Your task to perform on an android device: Show me recent news Image 0: 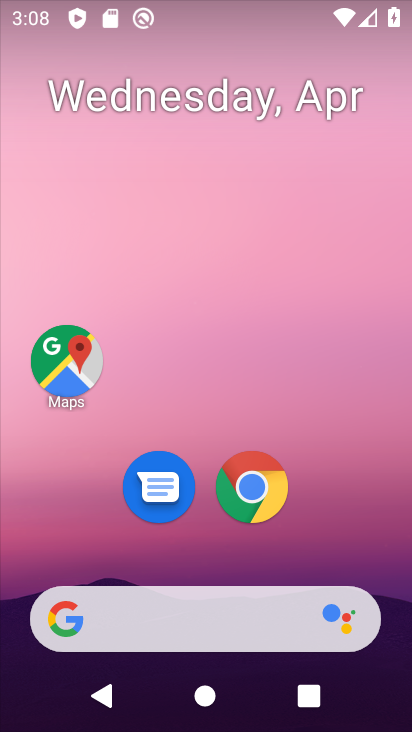
Step 0: click (270, 491)
Your task to perform on an android device: Show me recent news Image 1: 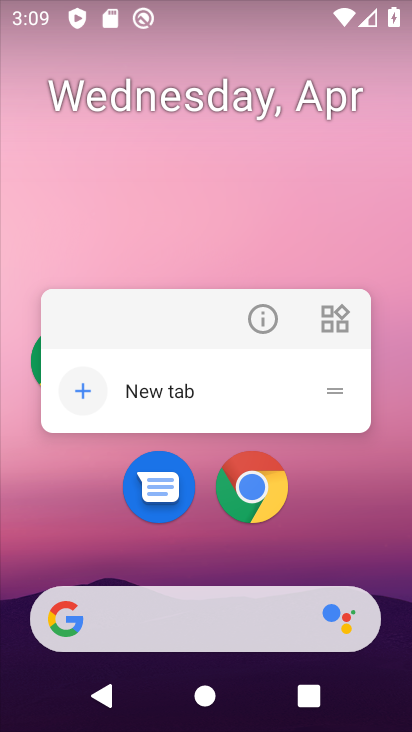
Step 1: click (272, 484)
Your task to perform on an android device: Show me recent news Image 2: 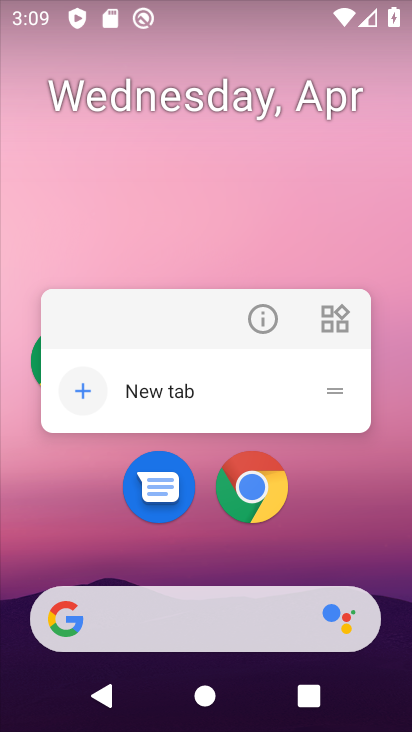
Step 2: click (267, 506)
Your task to perform on an android device: Show me recent news Image 3: 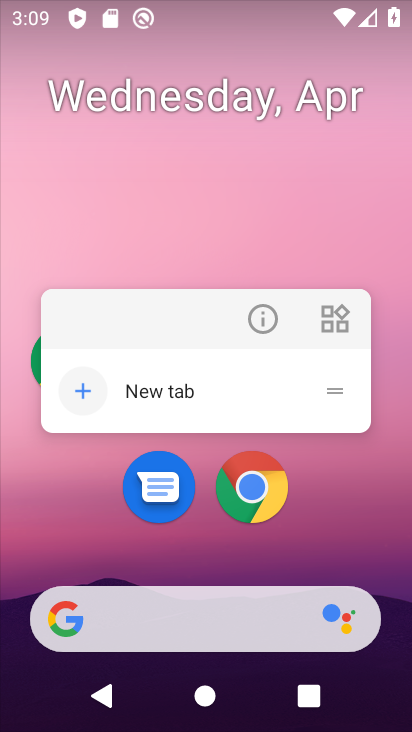
Step 3: click (254, 448)
Your task to perform on an android device: Show me recent news Image 4: 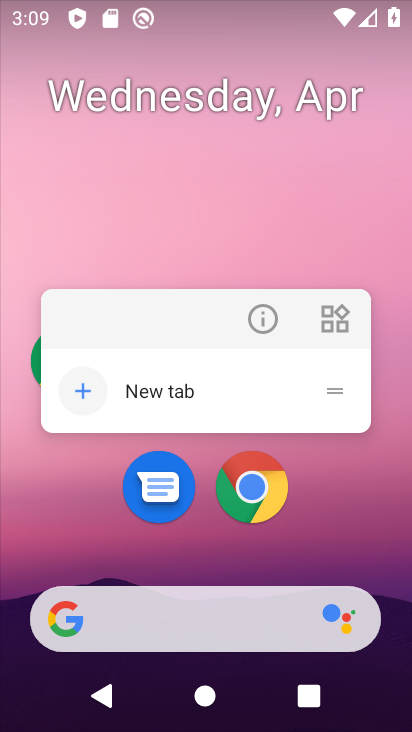
Step 4: click (251, 465)
Your task to perform on an android device: Show me recent news Image 5: 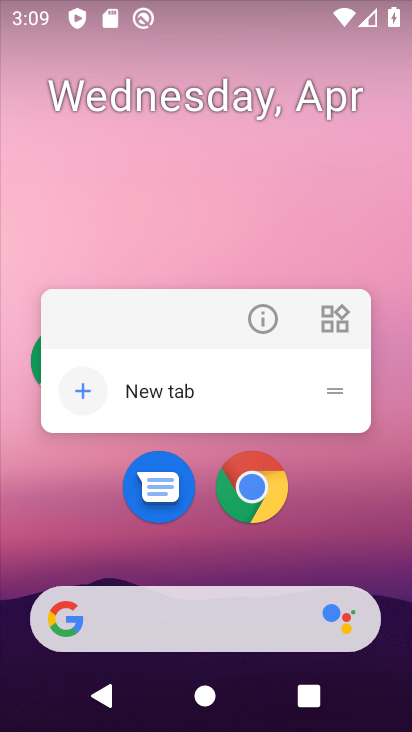
Step 5: click (250, 481)
Your task to perform on an android device: Show me recent news Image 6: 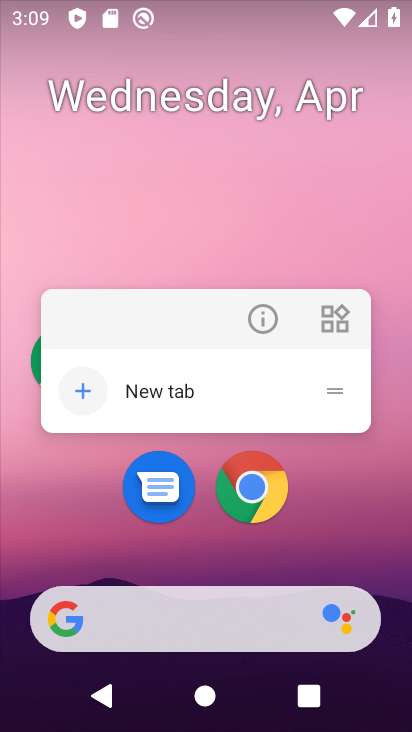
Step 6: drag from (366, 497) to (365, 185)
Your task to perform on an android device: Show me recent news Image 7: 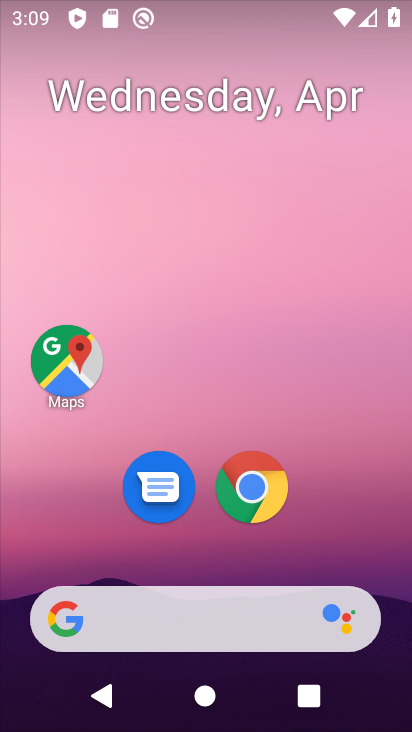
Step 7: drag from (358, 529) to (370, 168)
Your task to perform on an android device: Show me recent news Image 8: 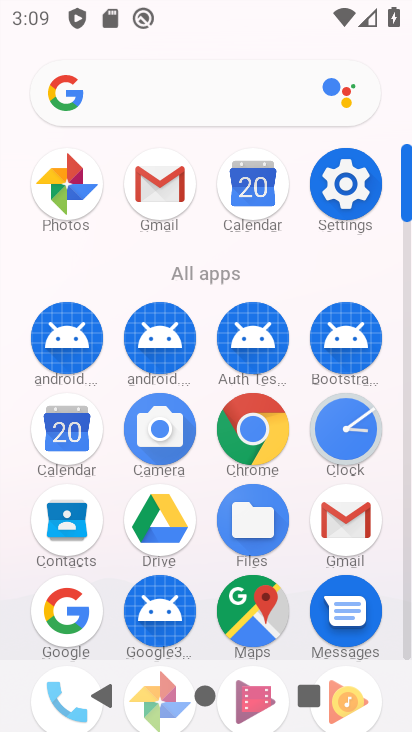
Step 8: click (264, 435)
Your task to perform on an android device: Show me recent news Image 9: 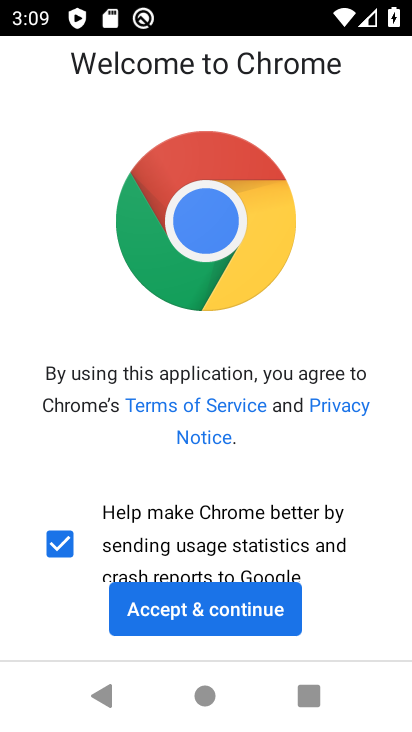
Step 9: click (250, 612)
Your task to perform on an android device: Show me recent news Image 10: 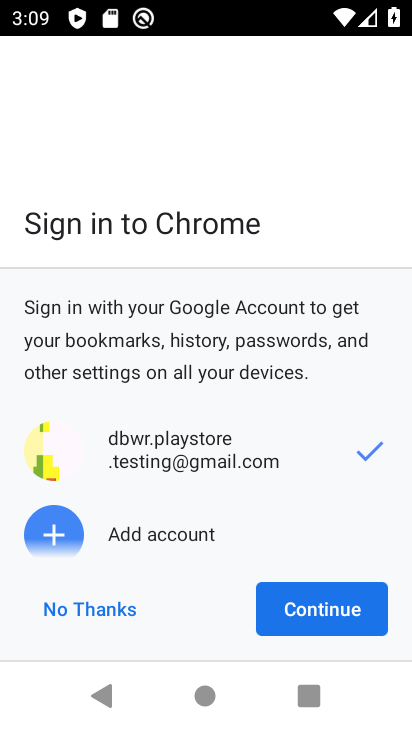
Step 10: click (294, 588)
Your task to perform on an android device: Show me recent news Image 11: 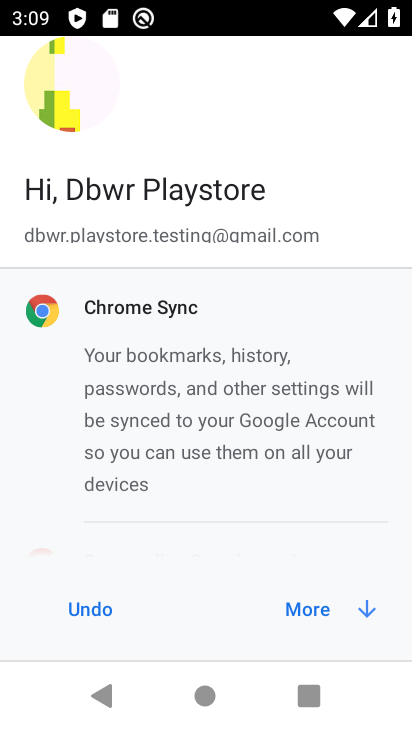
Step 11: click (285, 610)
Your task to perform on an android device: Show me recent news Image 12: 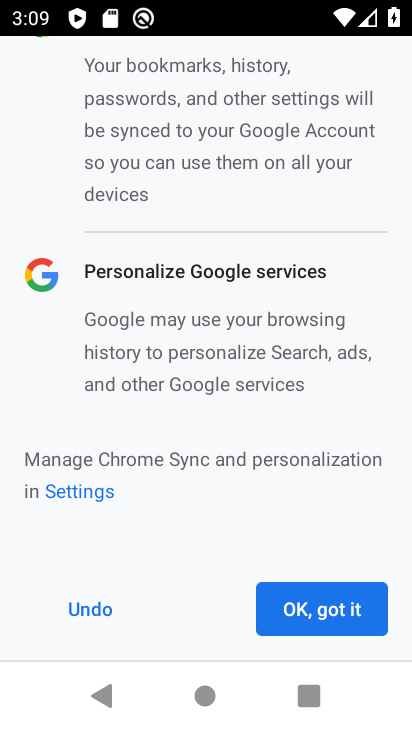
Step 12: click (283, 609)
Your task to perform on an android device: Show me recent news Image 13: 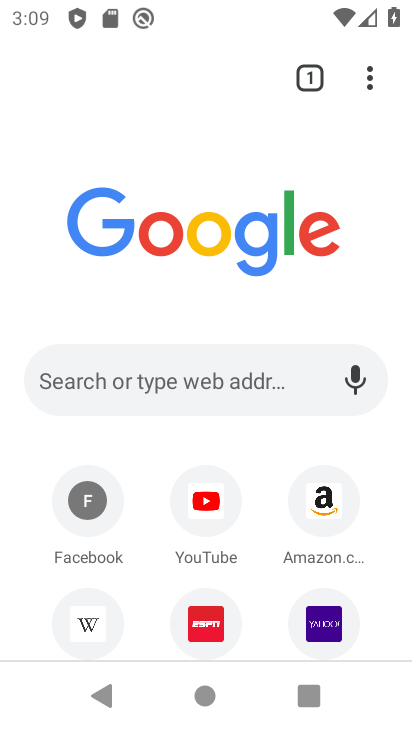
Step 13: click (212, 393)
Your task to perform on an android device: Show me recent news Image 14: 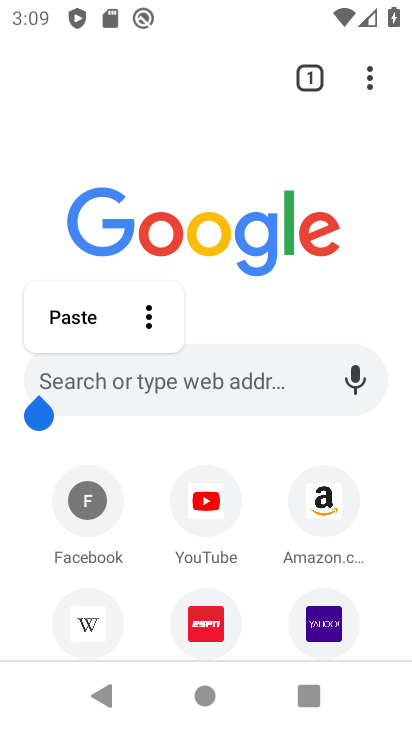
Step 14: click (246, 390)
Your task to perform on an android device: Show me recent news Image 15: 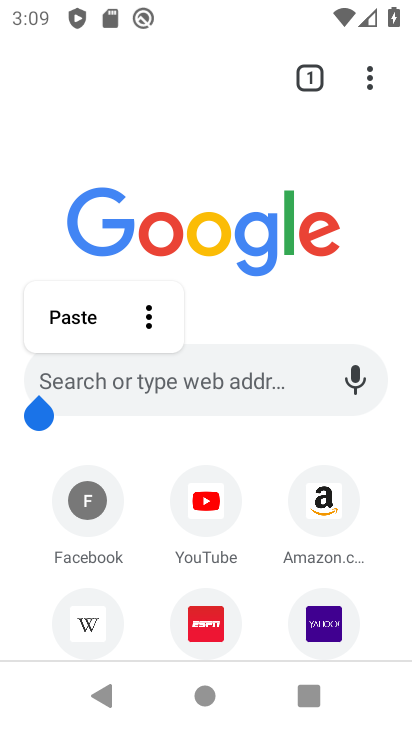
Step 15: click (224, 393)
Your task to perform on an android device: Show me recent news Image 16: 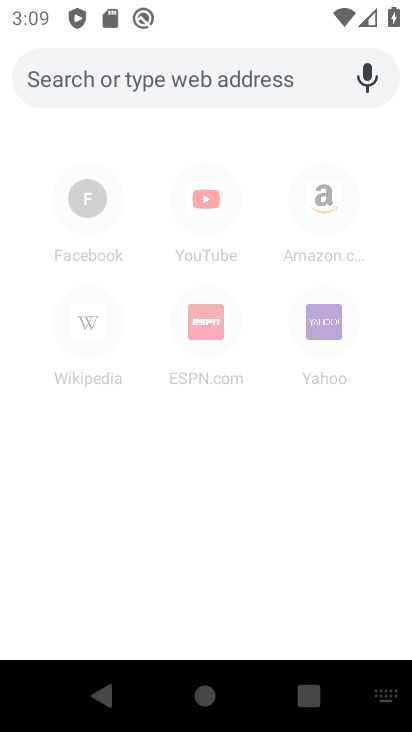
Step 16: type "recent news"
Your task to perform on an android device: Show me recent news Image 17: 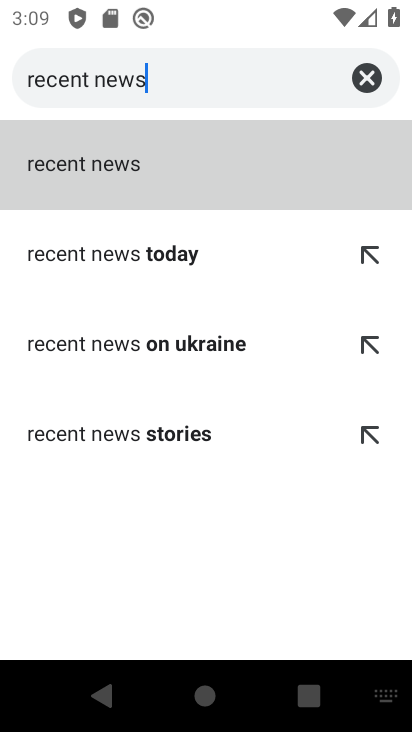
Step 17: click (145, 170)
Your task to perform on an android device: Show me recent news Image 18: 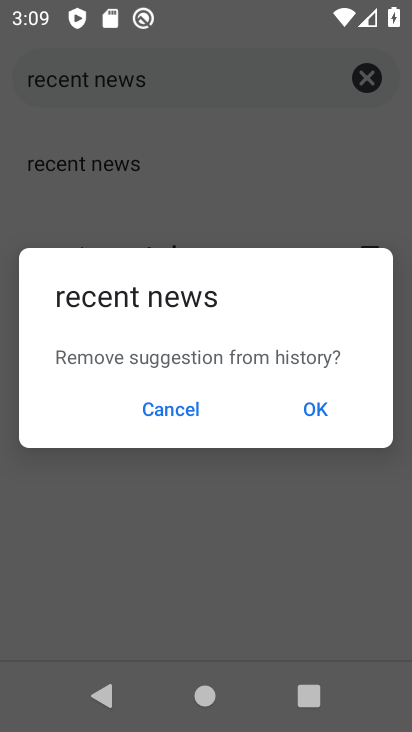
Step 18: click (325, 410)
Your task to perform on an android device: Show me recent news Image 19: 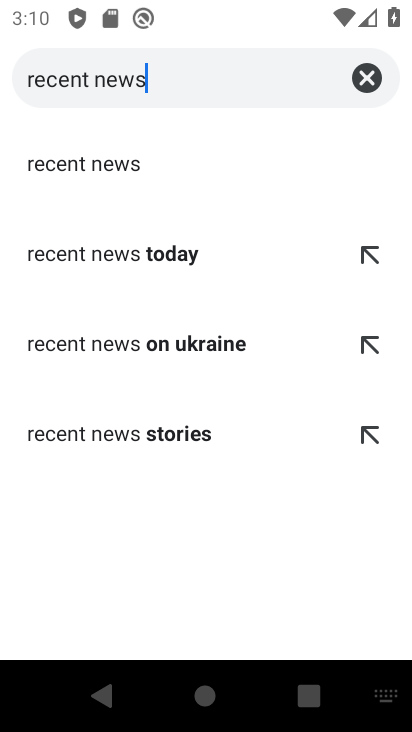
Step 19: click (120, 162)
Your task to perform on an android device: Show me recent news Image 20: 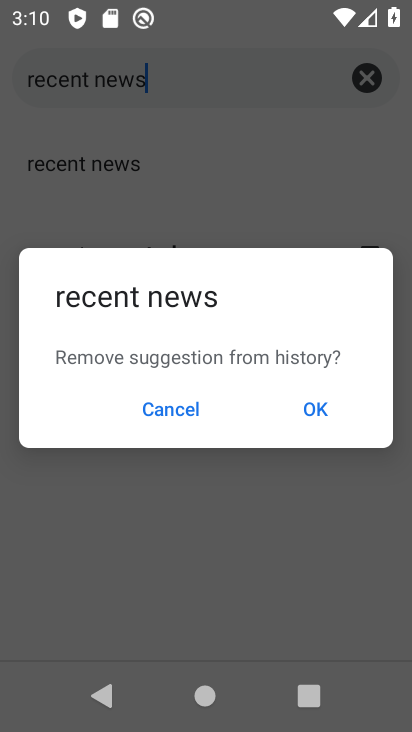
Step 20: click (305, 411)
Your task to perform on an android device: Show me recent news Image 21: 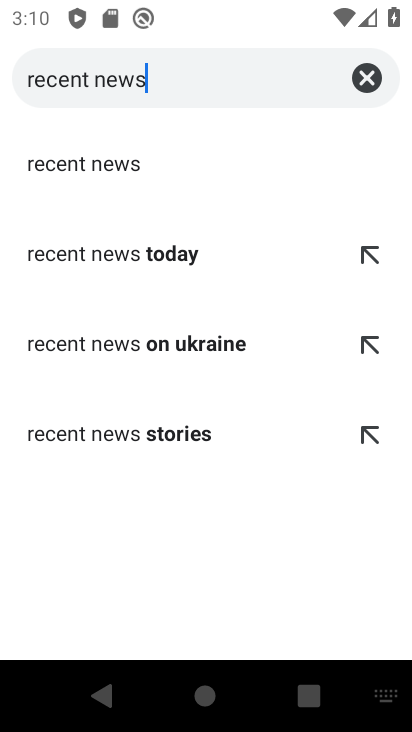
Step 21: click (91, 148)
Your task to perform on an android device: Show me recent news Image 22: 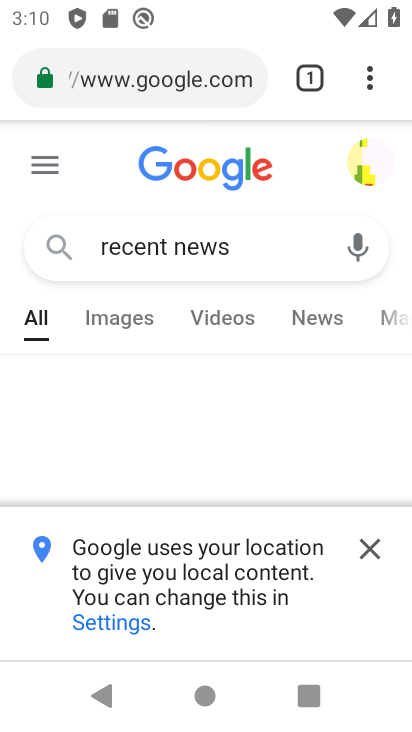
Step 22: click (373, 547)
Your task to perform on an android device: Show me recent news Image 23: 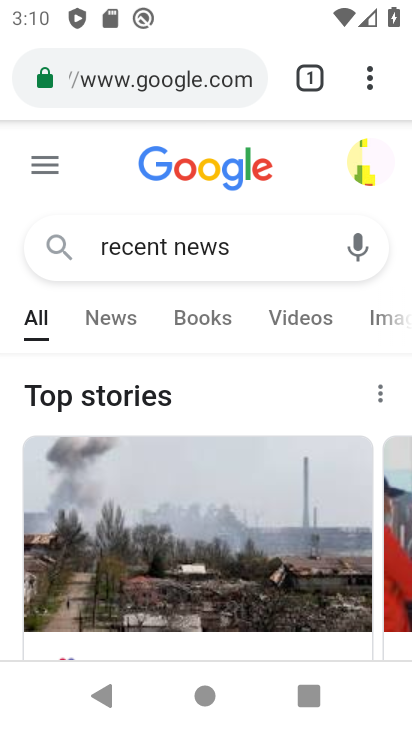
Step 23: task complete